Your task to perform on an android device: turn on translation in the chrome app Image 0: 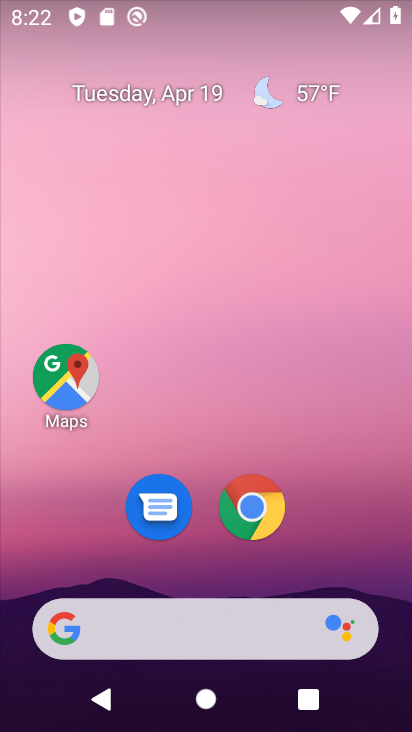
Step 0: click (257, 491)
Your task to perform on an android device: turn on translation in the chrome app Image 1: 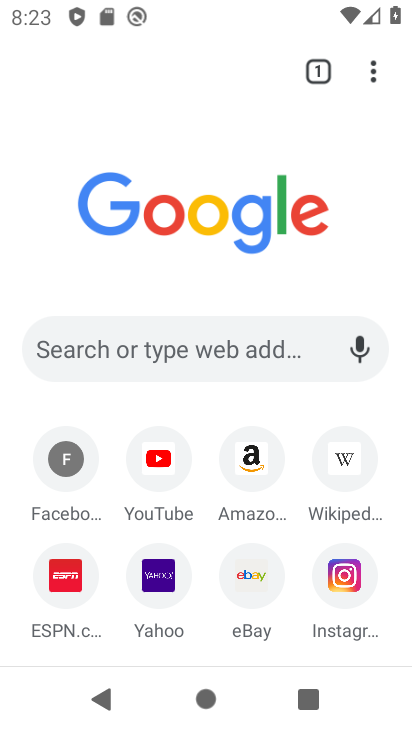
Step 1: click (380, 79)
Your task to perform on an android device: turn on translation in the chrome app Image 2: 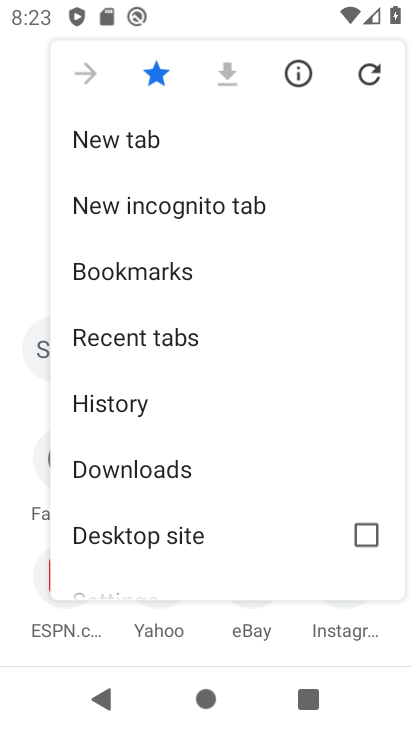
Step 2: drag from (242, 490) to (285, 150)
Your task to perform on an android device: turn on translation in the chrome app Image 3: 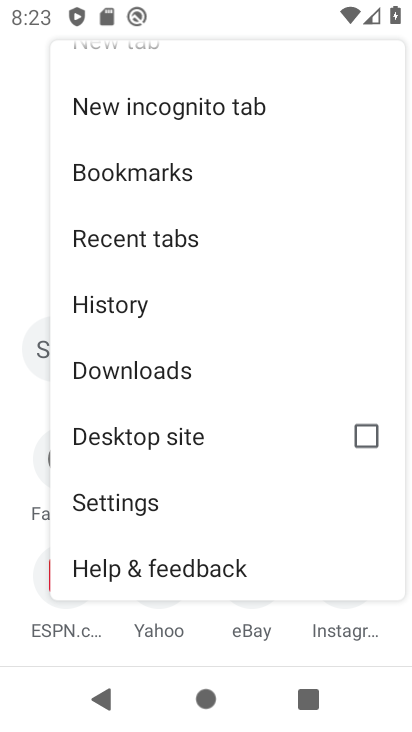
Step 3: click (217, 519)
Your task to perform on an android device: turn on translation in the chrome app Image 4: 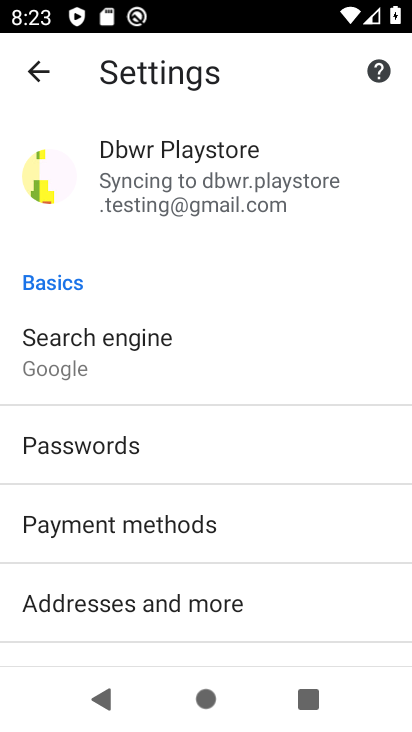
Step 4: drag from (212, 569) to (252, 210)
Your task to perform on an android device: turn on translation in the chrome app Image 5: 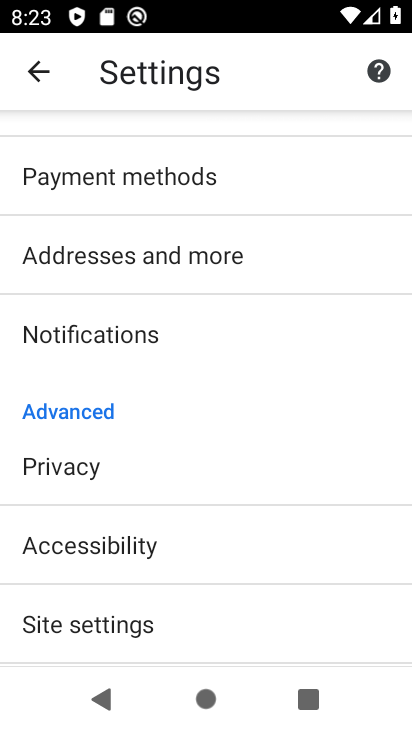
Step 5: drag from (296, 443) to (283, 234)
Your task to perform on an android device: turn on translation in the chrome app Image 6: 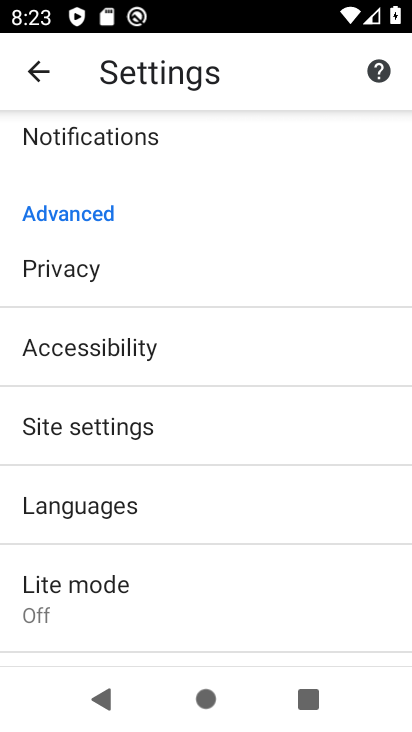
Step 6: click (270, 525)
Your task to perform on an android device: turn on translation in the chrome app Image 7: 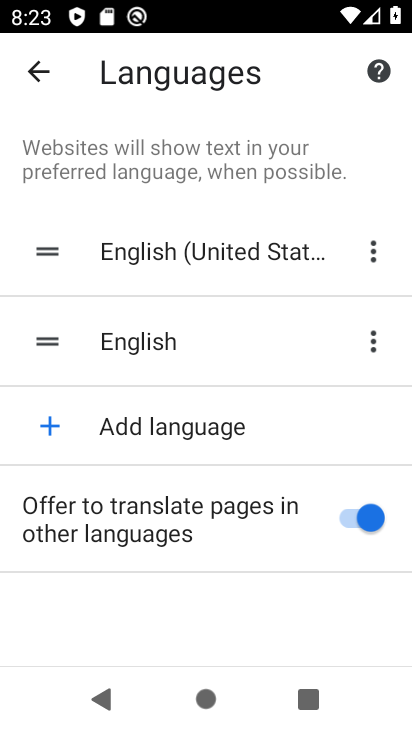
Step 7: task complete